Your task to perform on an android device: Open Google Maps Image 0: 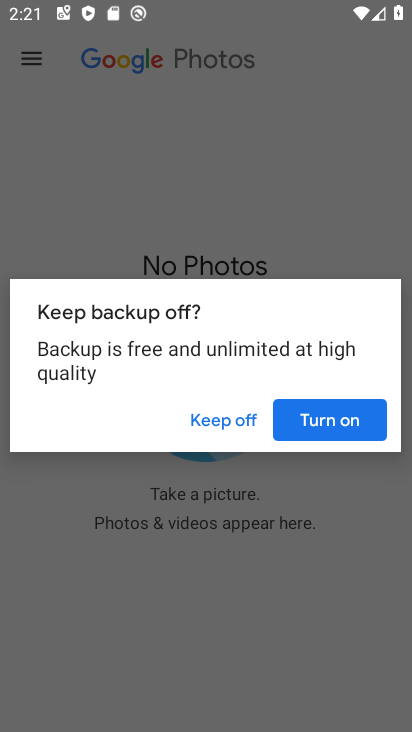
Step 0: press back button
Your task to perform on an android device: Open Google Maps Image 1: 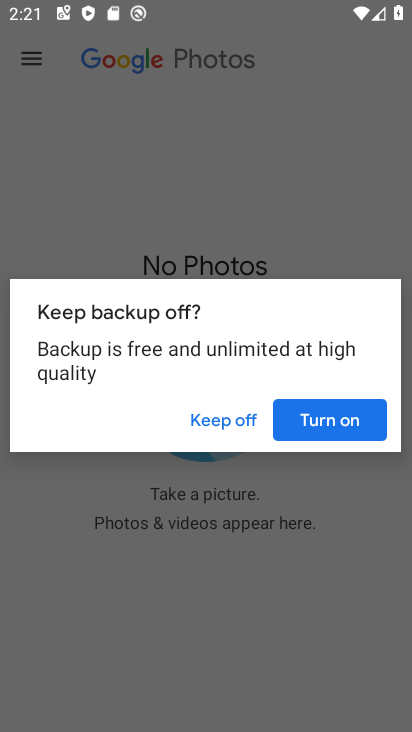
Step 1: press home button
Your task to perform on an android device: Open Google Maps Image 2: 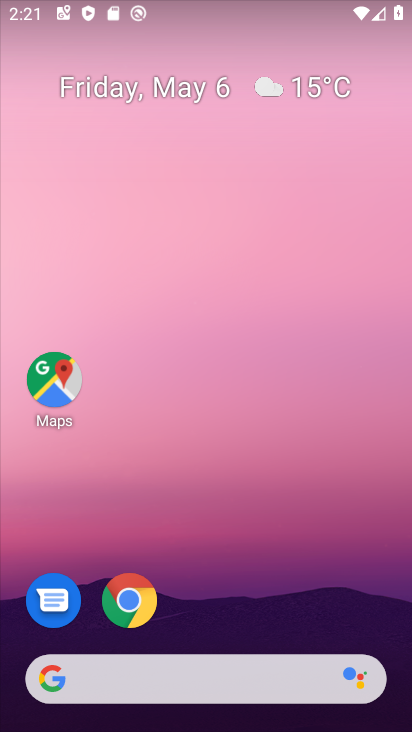
Step 2: drag from (289, 568) to (243, 5)
Your task to perform on an android device: Open Google Maps Image 3: 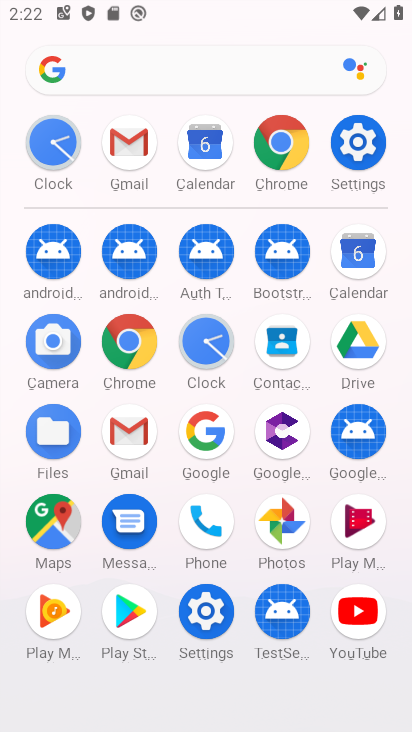
Step 3: click (42, 526)
Your task to perform on an android device: Open Google Maps Image 4: 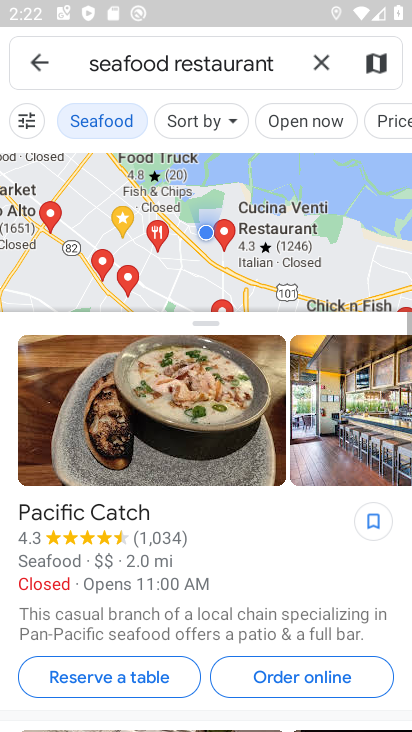
Step 4: click (31, 52)
Your task to perform on an android device: Open Google Maps Image 5: 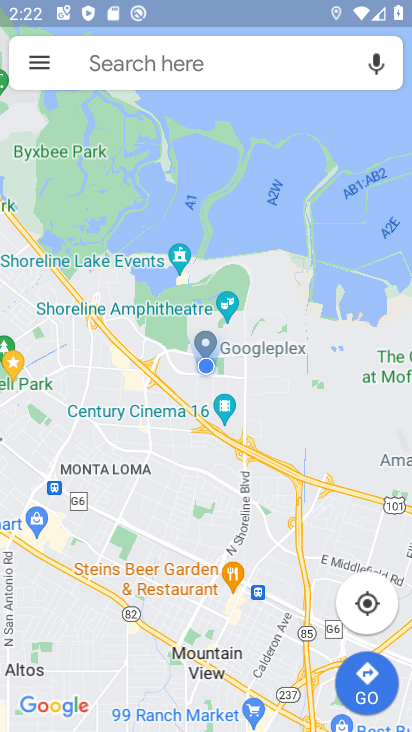
Step 5: task complete